Your task to perform on an android device: see creations saved in the google photos Image 0: 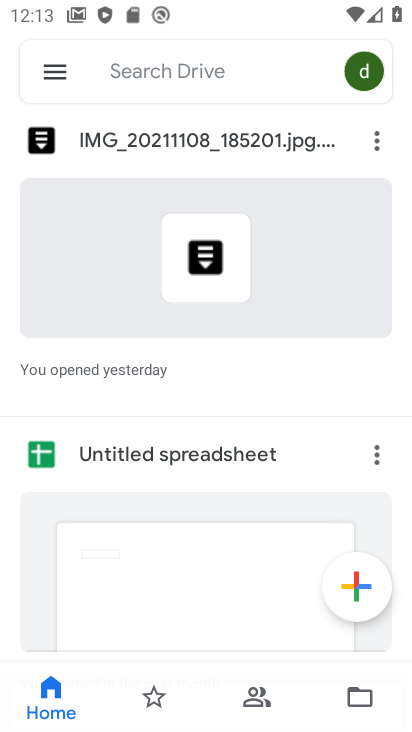
Step 0: press home button
Your task to perform on an android device: see creations saved in the google photos Image 1: 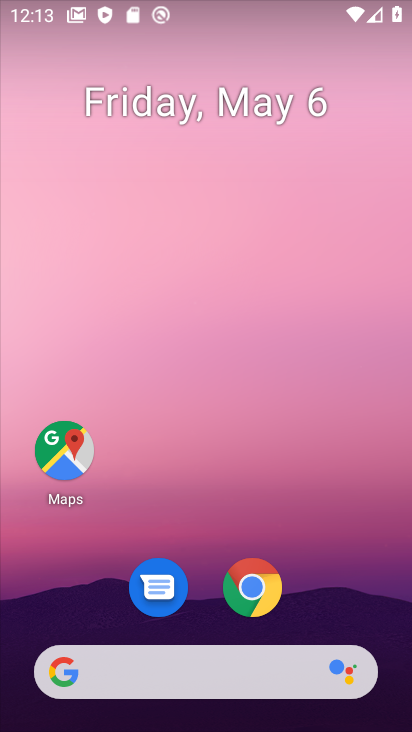
Step 1: drag from (75, 530) to (246, 272)
Your task to perform on an android device: see creations saved in the google photos Image 2: 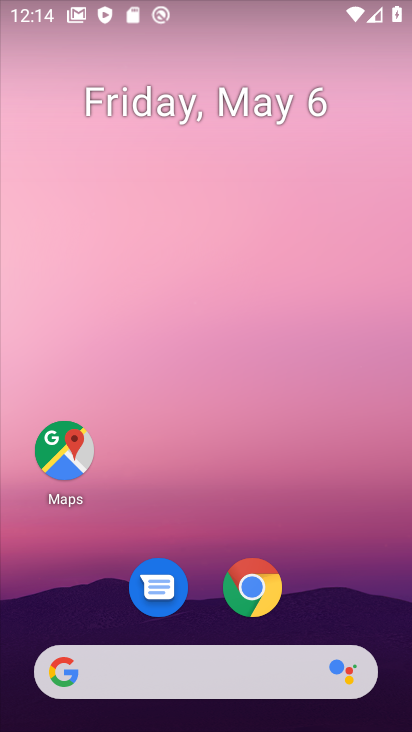
Step 2: drag from (4, 606) to (170, 128)
Your task to perform on an android device: see creations saved in the google photos Image 3: 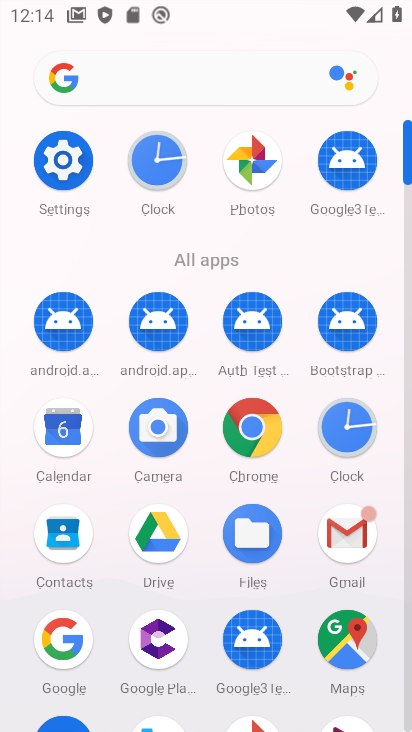
Step 3: drag from (70, 656) to (260, 225)
Your task to perform on an android device: see creations saved in the google photos Image 4: 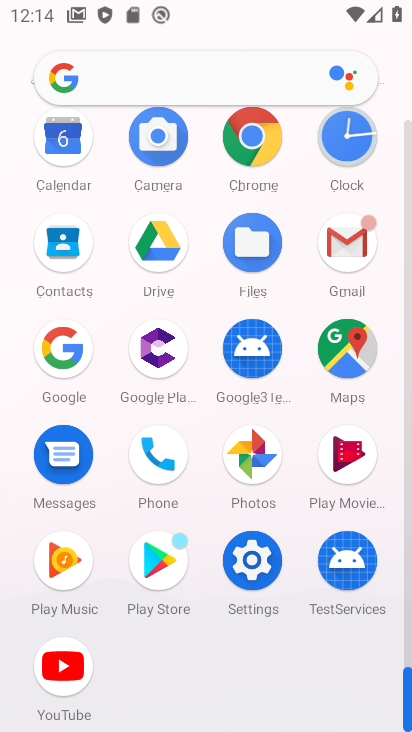
Step 4: drag from (272, 167) to (214, 632)
Your task to perform on an android device: see creations saved in the google photos Image 5: 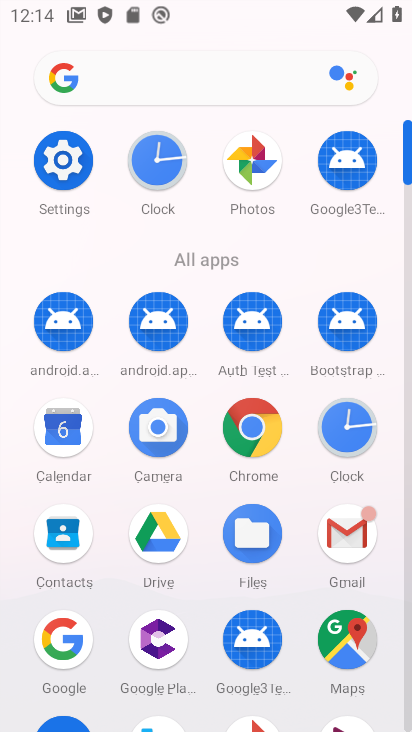
Step 5: click (255, 166)
Your task to perform on an android device: see creations saved in the google photos Image 6: 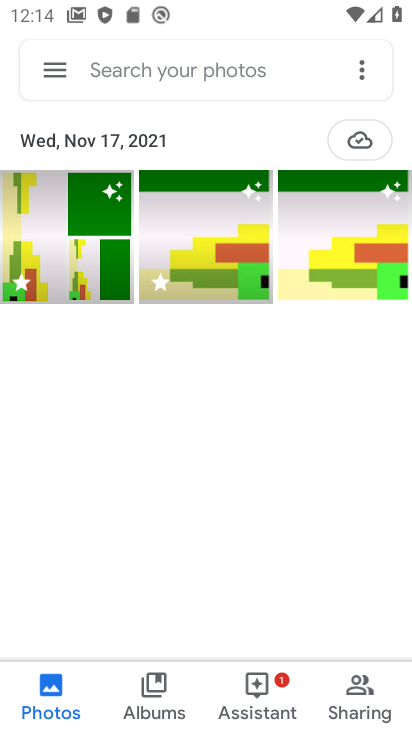
Step 6: click (246, 64)
Your task to perform on an android device: see creations saved in the google photos Image 7: 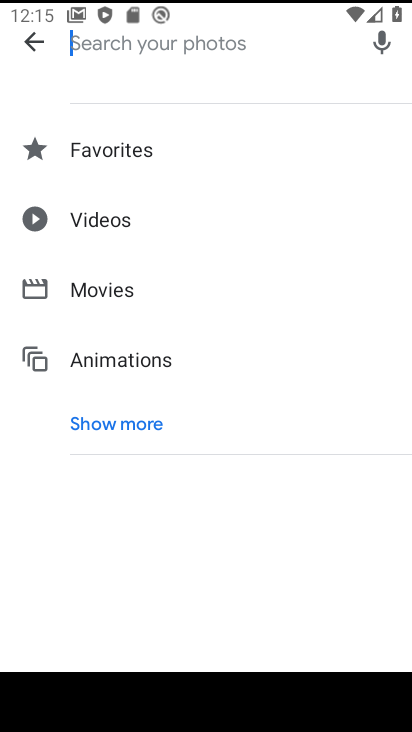
Step 7: click (115, 425)
Your task to perform on an android device: see creations saved in the google photos Image 8: 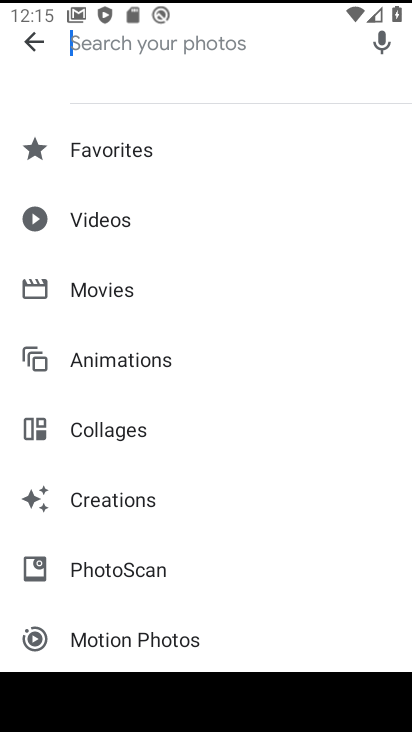
Step 8: click (120, 489)
Your task to perform on an android device: see creations saved in the google photos Image 9: 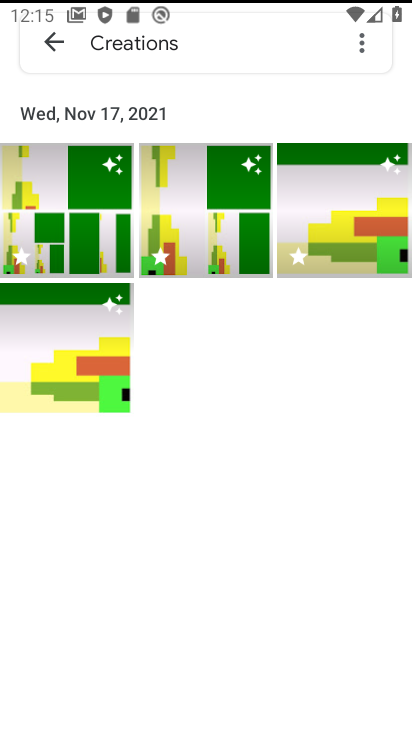
Step 9: task complete